Your task to perform on an android device: check android version Image 0: 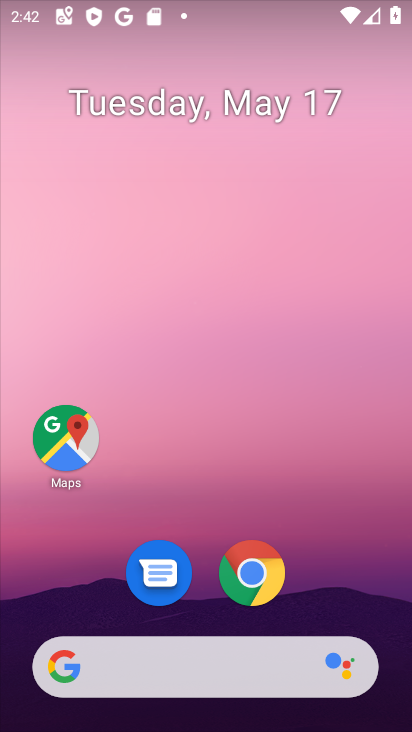
Step 0: drag from (343, 546) to (351, 206)
Your task to perform on an android device: check android version Image 1: 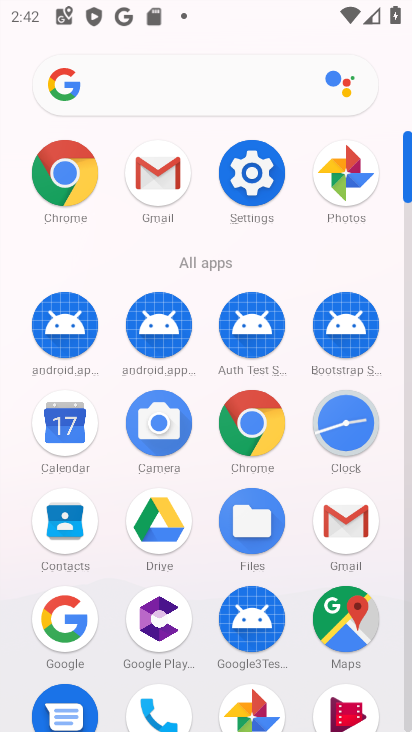
Step 1: click (243, 172)
Your task to perform on an android device: check android version Image 2: 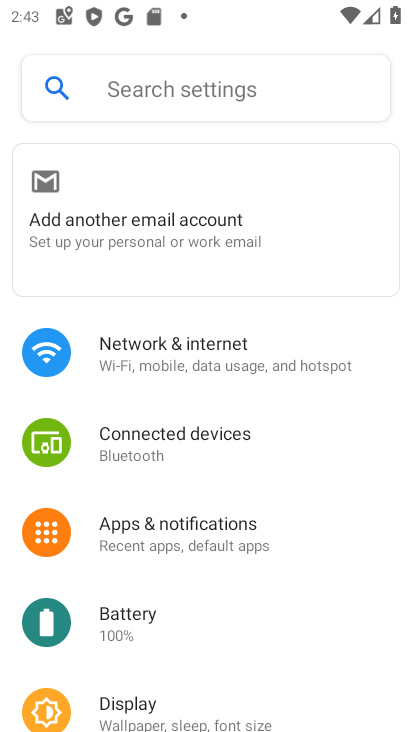
Step 2: drag from (262, 656) to (283, 407)
Your task to perform on an android device: check android version Image 3: 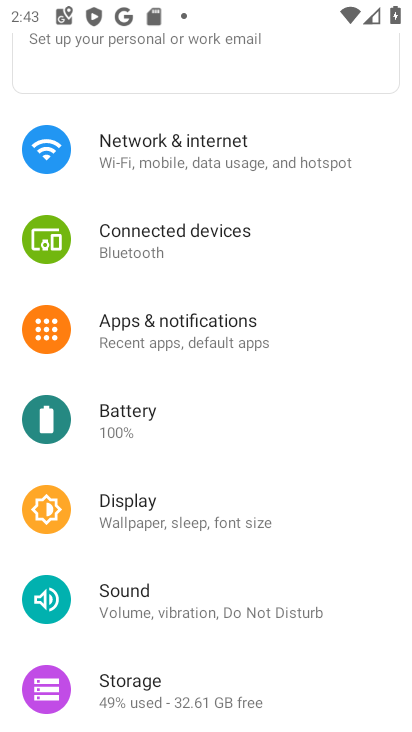
Step 3: drag from (290, 671) to (278, 231)
Your task to perform on an android device: check android version Image 4: 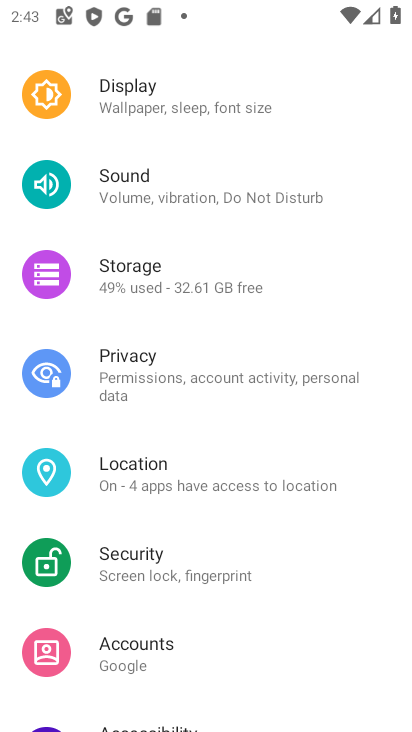
Step 4: drag from (239, 624) to (237, 254)
Your task to perform on an android device: check android version Image 5: 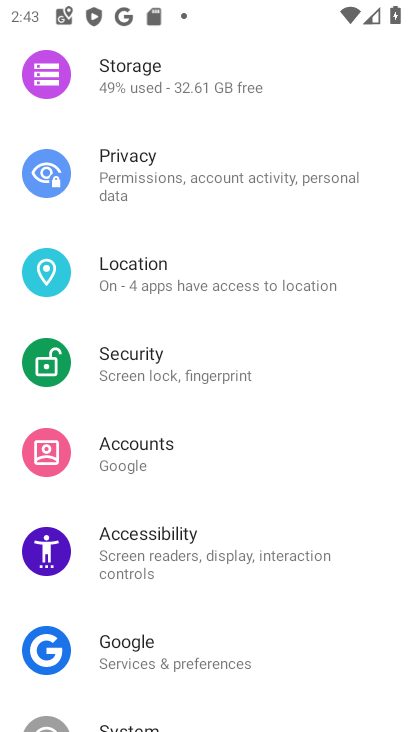
Step 5: drag from (278, 686) to (294, 147)
Your task to perform on an android device: check android version Image 6: 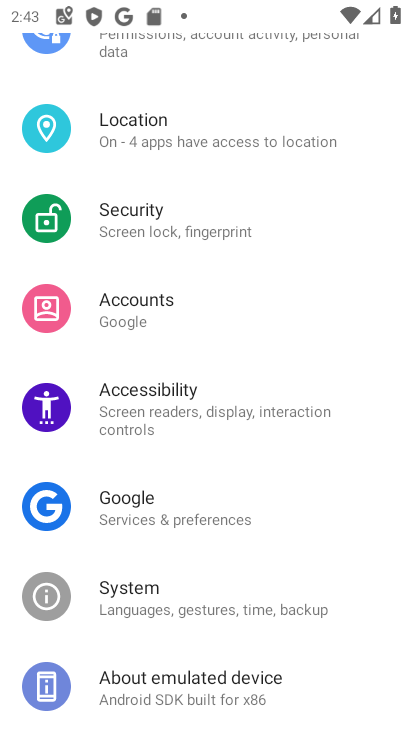
Step 6: click (235, 682)
Your task to perform on an android device: check android version Image 7: 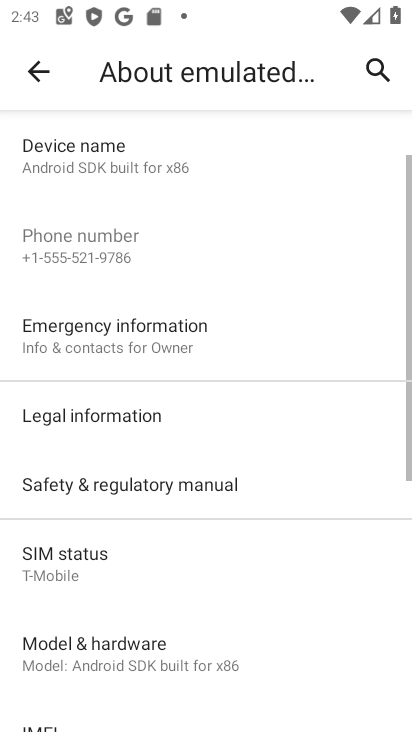
Step 7: drag from (295, 691) to (302, 291)
Your task to perform on an android device: check android version Image 8: 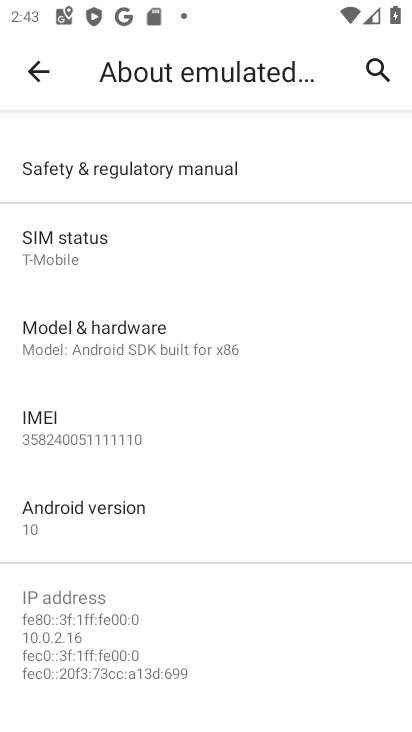
Step 8: click (146, 513)
Your task to perform on an android device: check android version Image 9: 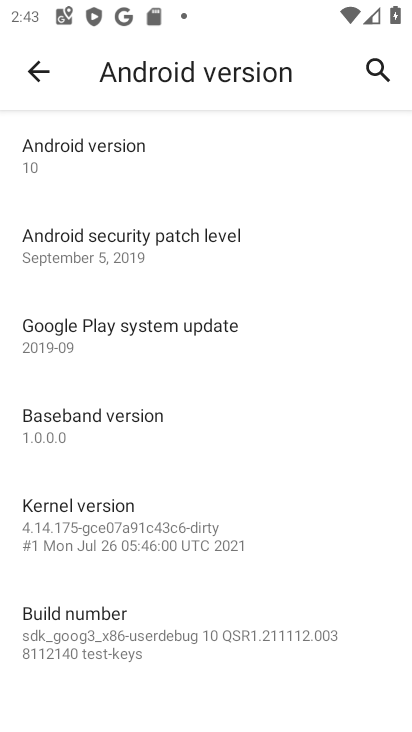
Step 9: task complete